Your task to perform on an android device: Show me popular videos on Youtube Image 0: 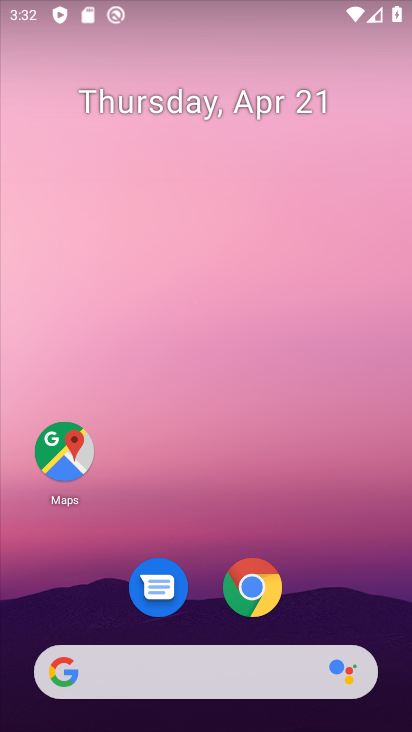
Step 0: drag from (353, 551) to (351, 43)
Your task to perform on an android device: Show me popular videos on Youtube Image 1: 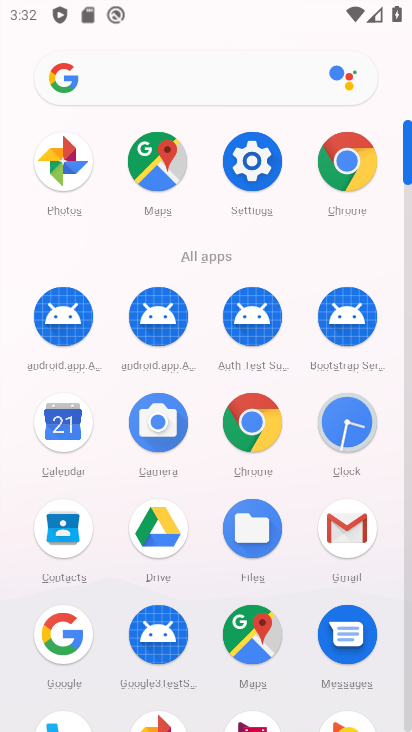
Step 1: drag from (406, 594) to (411, 558)
Your task to perform on an android device: Show me popular videos on Youtube Image 2: 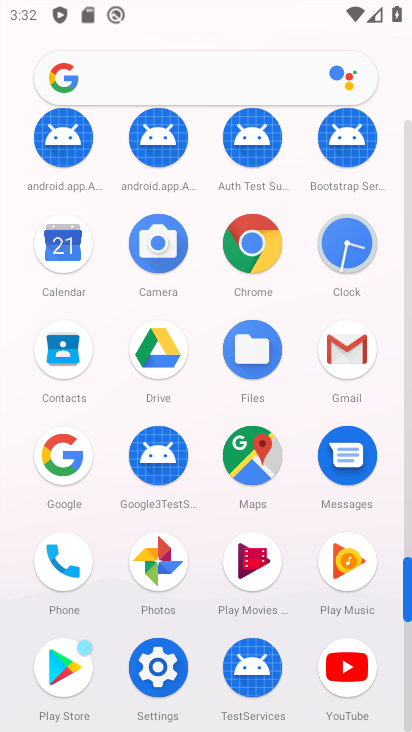
Step 2: click (347, 668)
Your task to perform on an android device: Show me popular videos on Youtube Image 3: 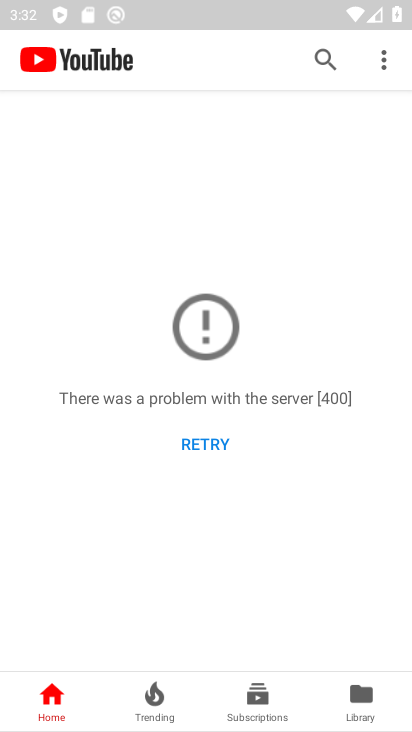
Step 3: task complete